Your task to perform on an android device: toggle notification dots Image 0: 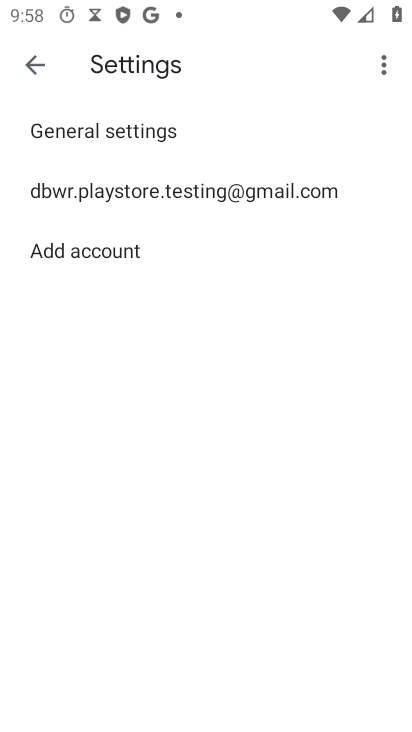
Step 0: press home button
Your task to perform on an android device: toggle notification dots Image 1: 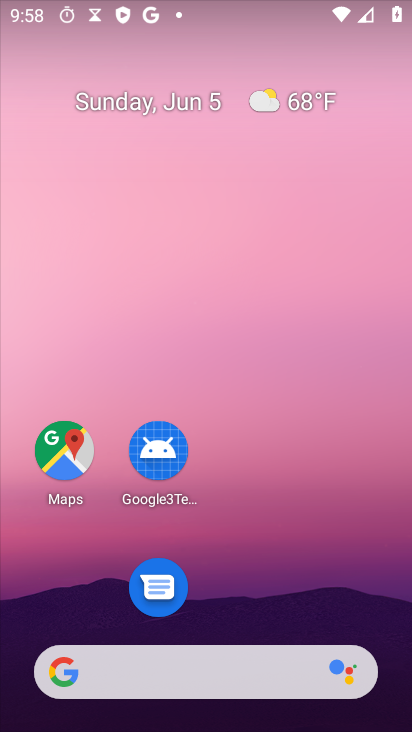
Step 1: drag from (300, 633) to (214, 54)
Your task to perform on an android device: toggle notification dots Image 2: 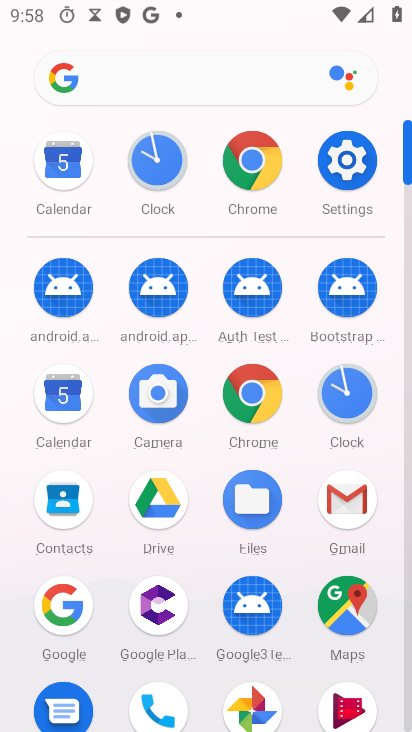
Step 2: click (247, 112)
Your task to perform on an android device: toggle notification dots Image 3: 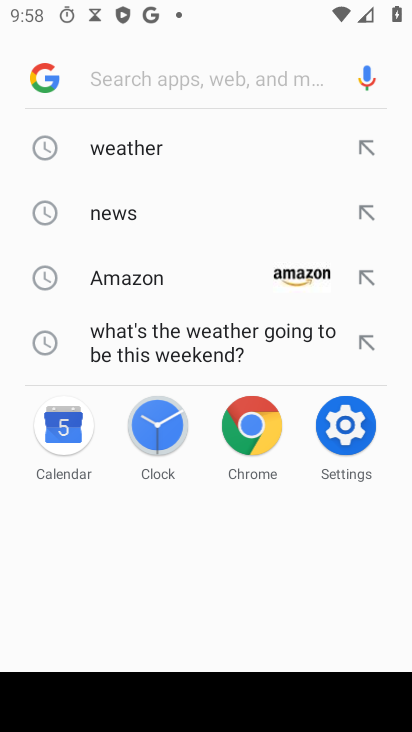
Step 3: press home button
Your task to perform on an android device: toggle notification dots Image 4: 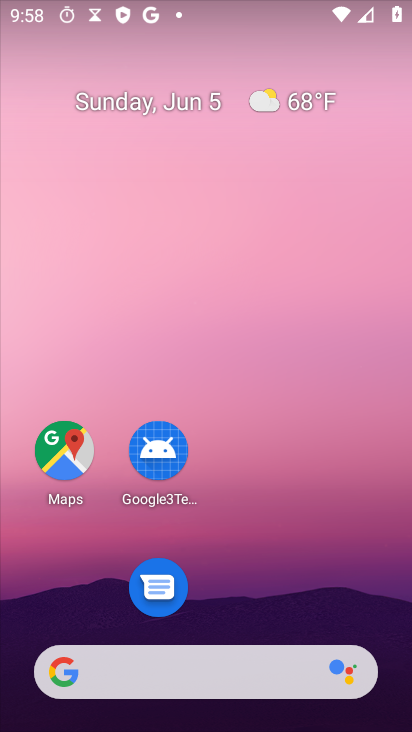
Step 4: drag from (273, 555) to (176, 67)
Your task to perform on an android device: toggle notification dots Image 5: 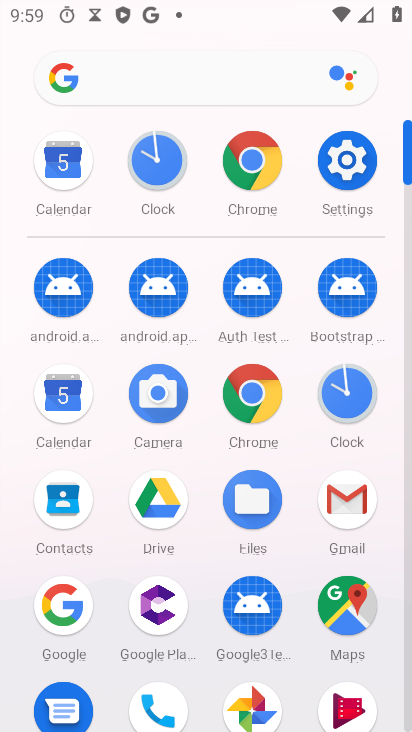
Step 5: click (355, 169)
Your task to perform on an android device: toggle notification dots Image 6: 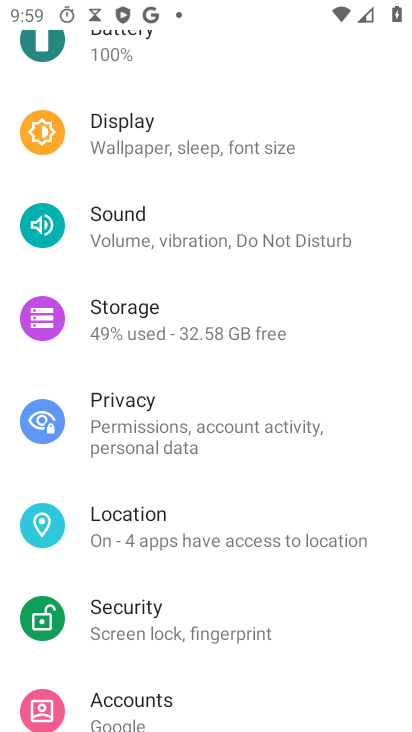
Step 6: drag from (142, 143) to (249, 486)
Your task to perform on an android device: toggle notification dots Image 7: 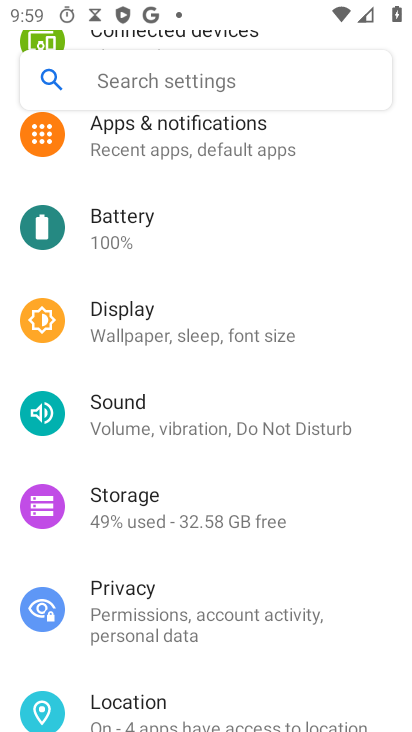
Step 7: click (254, 154)
Your task to perform on an android device: toggle notification dots Image 8: 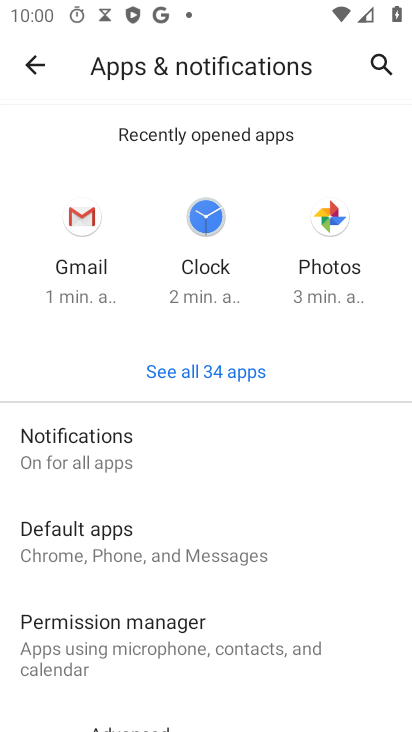
Step 8: click (106, 444)
Your task to perform on an android device: toggle notification dots Image 9: 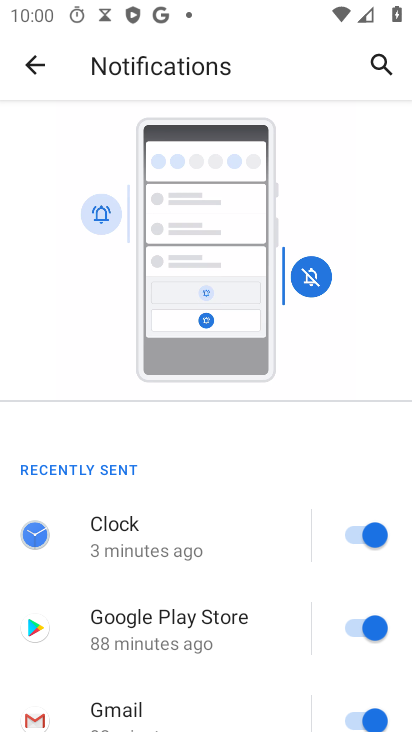
Step 9: drag from (146, 545) to (8, 25)
Your task to perform on an android device: toggle notification dots Image 10: 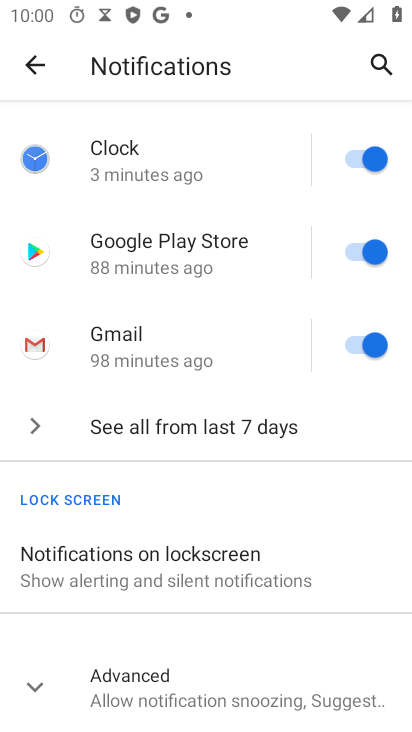
Step 10: click (235, 676)
Your task to perform on an android device: toggle notification dots Image 11: 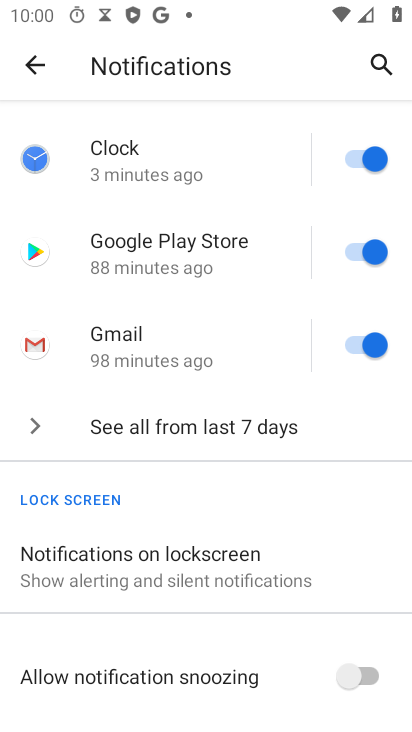
Step 11: drag from (235, 676) to (279, 179)
Your task to perform on an android device: toggle notification dots Image 12: 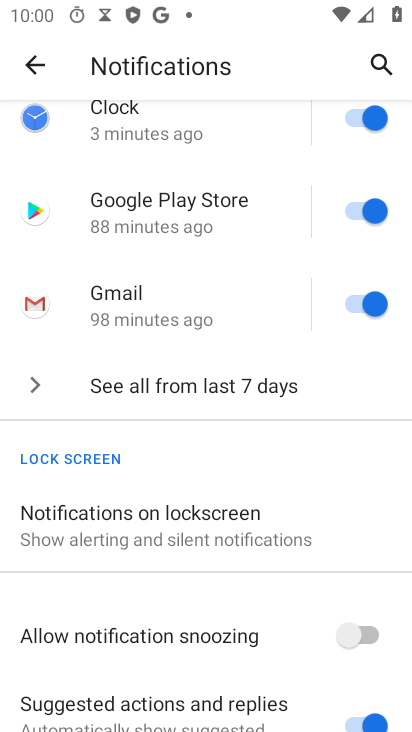
Step 12: drag from (288, 664) to (234, 422)
Your task to perform on an android device: toggle notification dots Image 13: 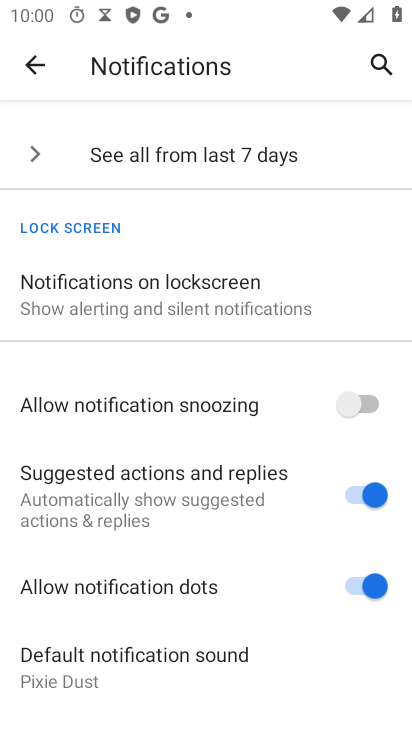
Step 13: click (365, 584)
Your task to perform on an android device: toggle notification dots Image 14: 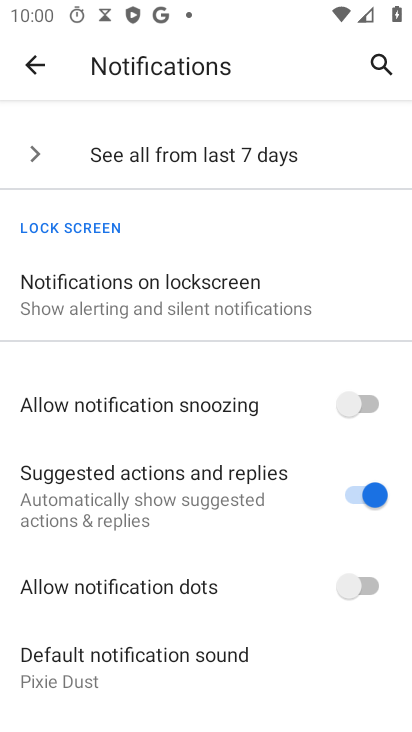
Step 14: task complete